Your task to perform on an android device: set an alarm Image 0: 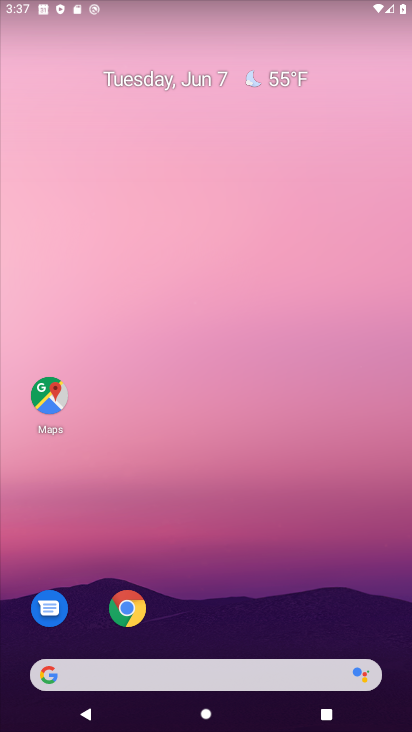
Step 0: drag from (216, 644) to (377, 0)
Your task to perform on an android device: set an alarm Image 1: 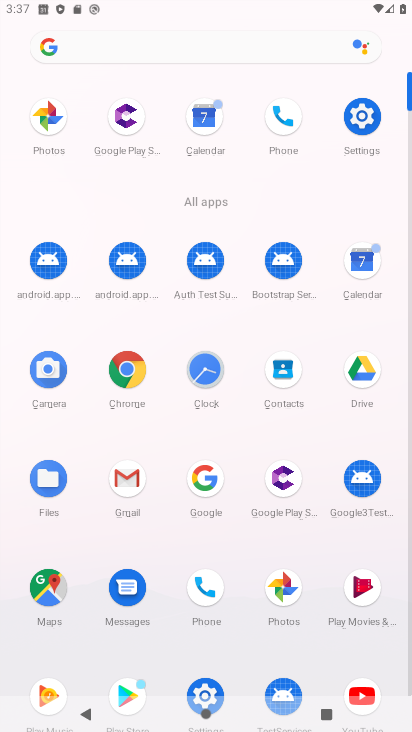
Step 1: click (192, 368)
Your task to perform on an android device: set an alarm Image 2: 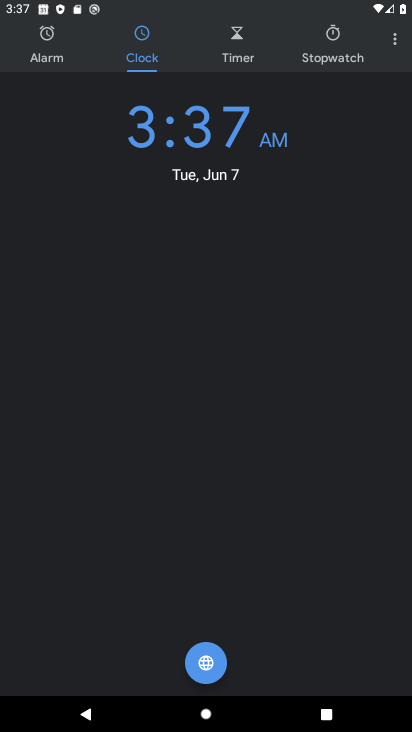
Step 2: click (63, 49)
Your task to perform on an android device: set an alarm Image 3: 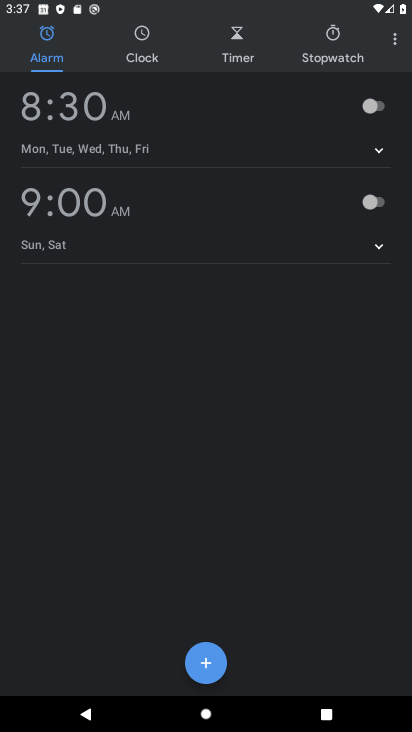
Step 3: click (225, 671)
Your task to perform on an android device: set an alarm Image 4: 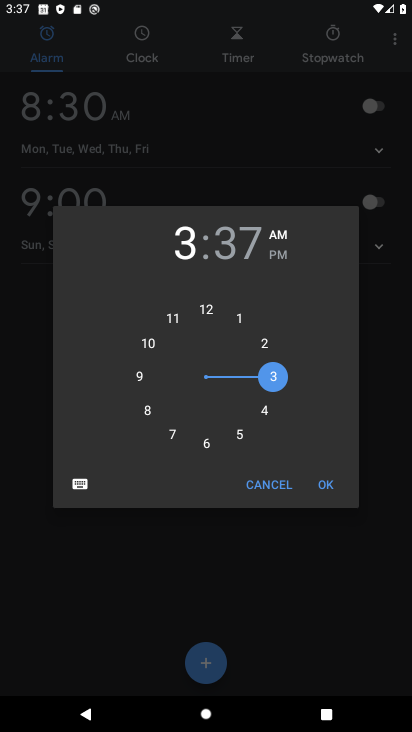
Step 4: click (328, 494)
Your task to perform on an android device: set an alarm Image 5: 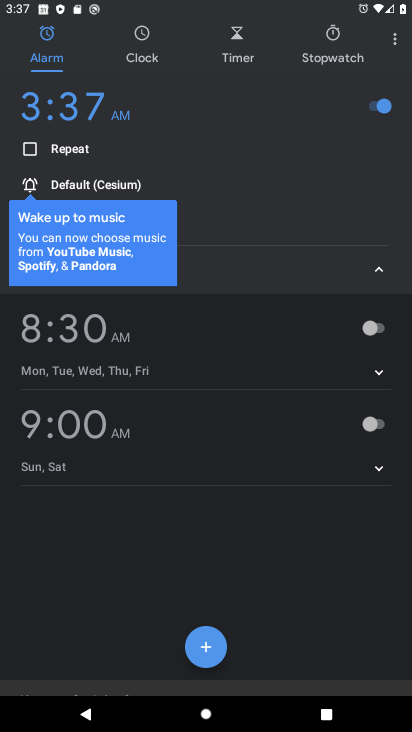
Step 5: task complete